Your task to perform on an android device: Go to internet settings Image 0: 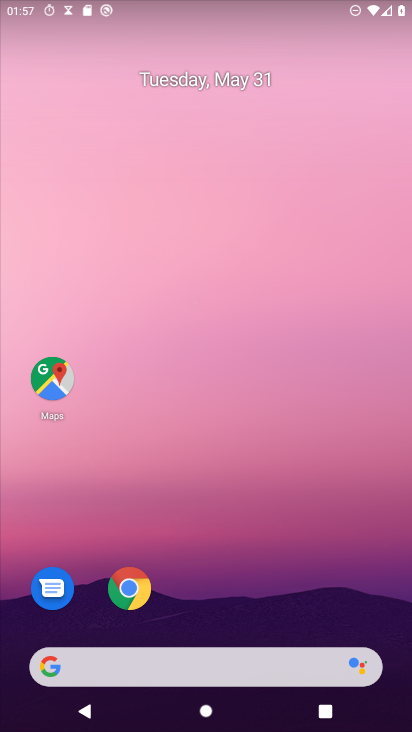
Step 0: drag from (271, 680) to (310, 0)
Your task to perform on an android device: Go to internet settings Image 1: 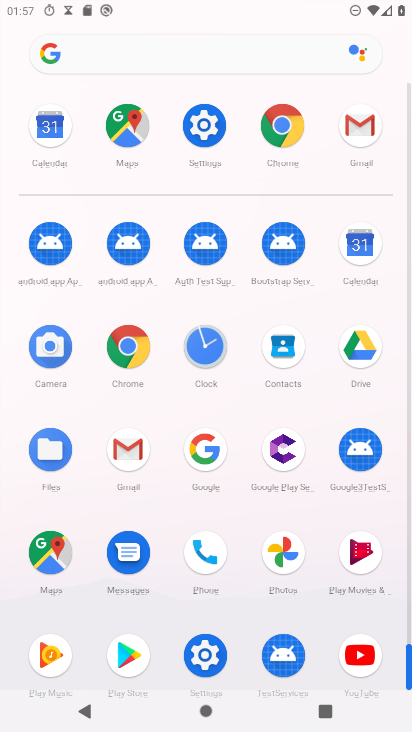
Step 1: click (203, 108)
Your task to perform on an android device: Go to internet settings Image 2: 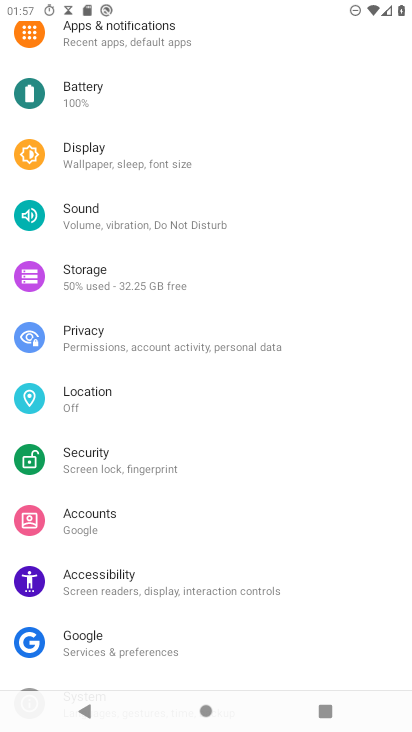
Step 2: drag from (247, 183) to (202, 695)
Your task to perform on an android device: Go to internet settings Image 3: 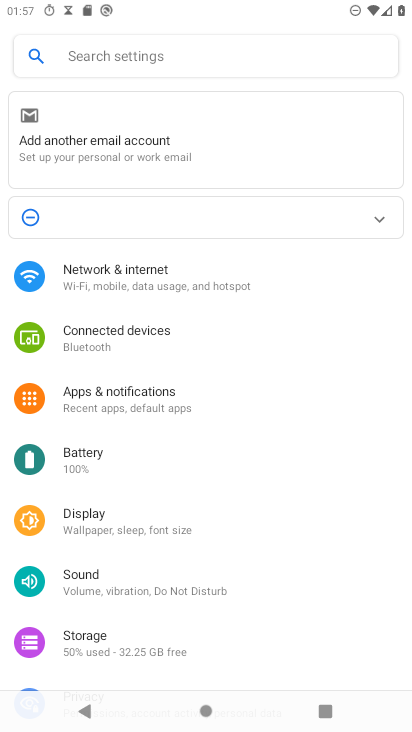
Step 3: click (214, 290)
Your task to perform on an android device: Go to internet settings Image 4: 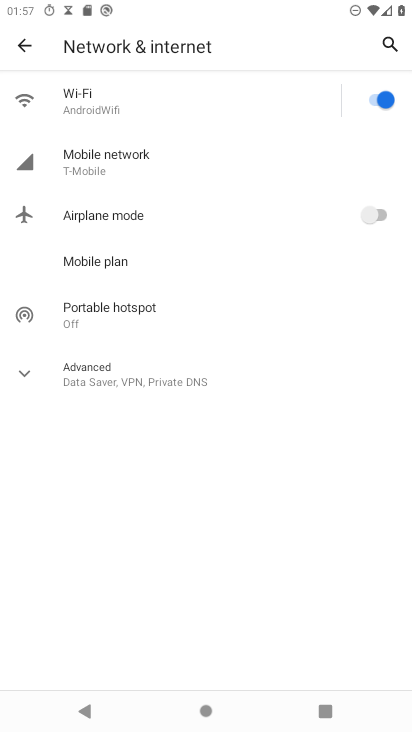
Step 4: click (145, 171)
Your task to perform on an android device: Go to internet settings Image 5: 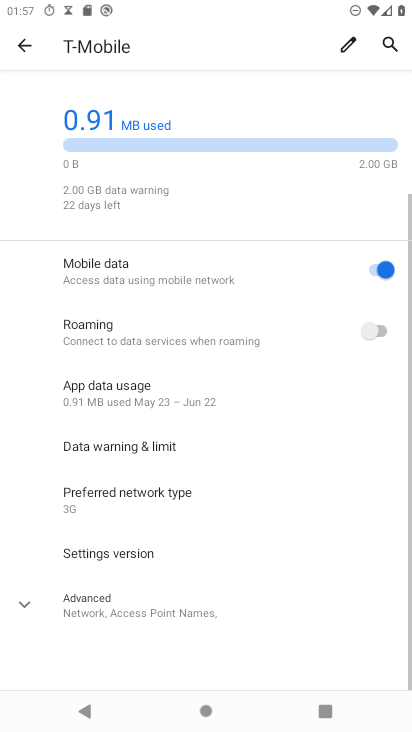
Step 5: task complete